Your task to perform on an android device: open wifi settings Image 0: 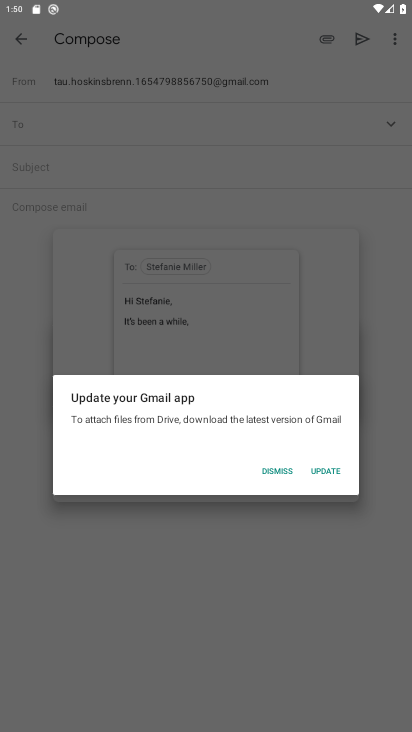
Step 0: press home button
Your task to perform on an android device: open wifi settings Image 1: 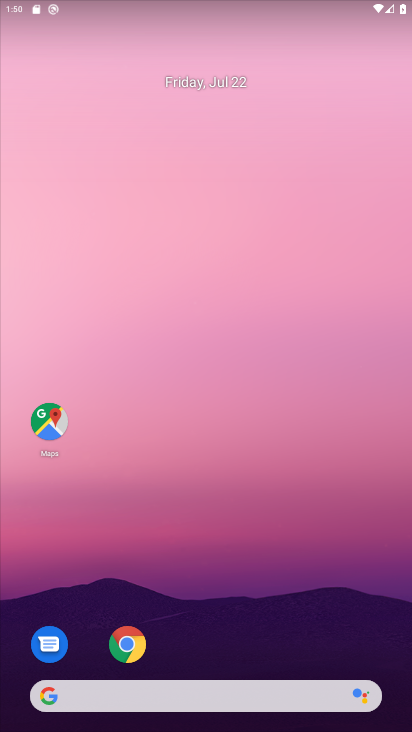
Step 1: drag from (236, 621) to (220, 21)
Your task to perform on an android device: open wifi settings Image 2: 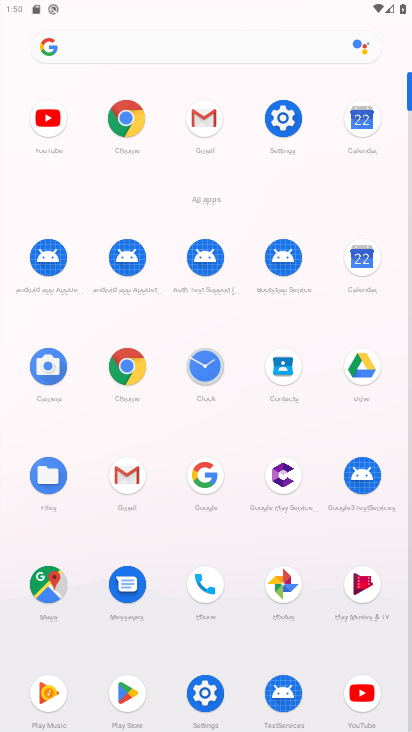
Step 2: click (285, 100)
Your task to perform on an android device: open wifi settings Image 3: 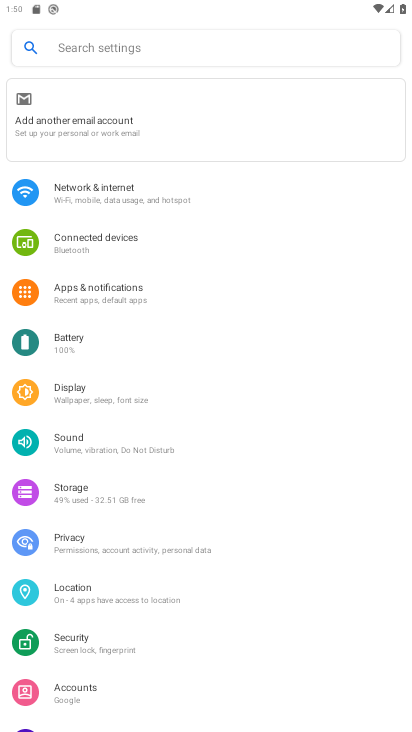
Step 3: click (151, 190)
Your task to perform on an android device: open wifi settings Image 4: 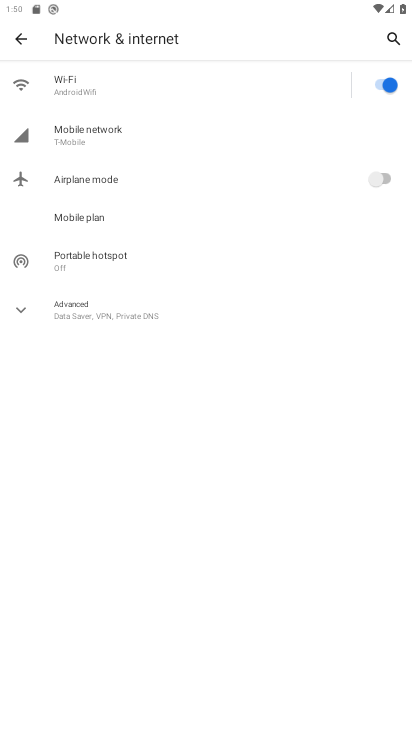
Step 4: click (12, 83)
Your task to perform on an android device: open wifi settings Image 5: 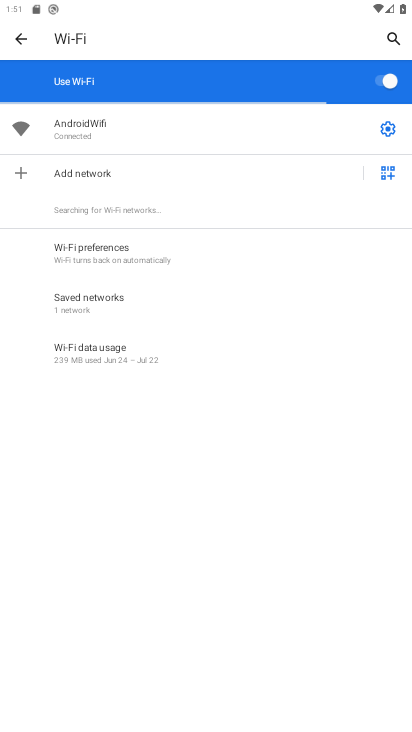
Step 5: task complete